Your task to perform on an android device: search for starred emails in the gmail app Image 0: 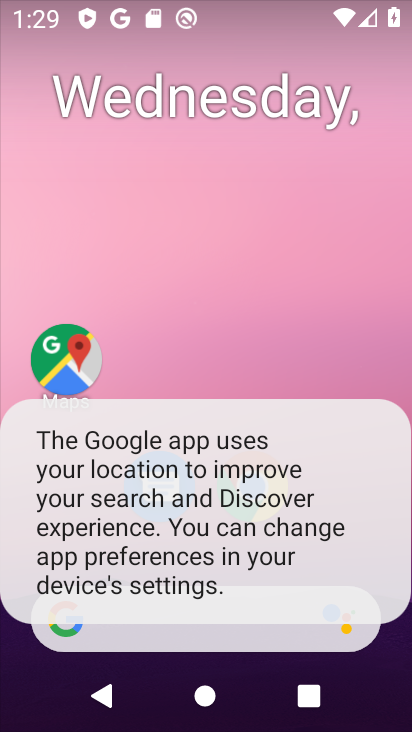
Step 0: drag from (286, 514) to (300, 150)
Your task to perform on an android device: search for starred emails in the gmail app Image 1: 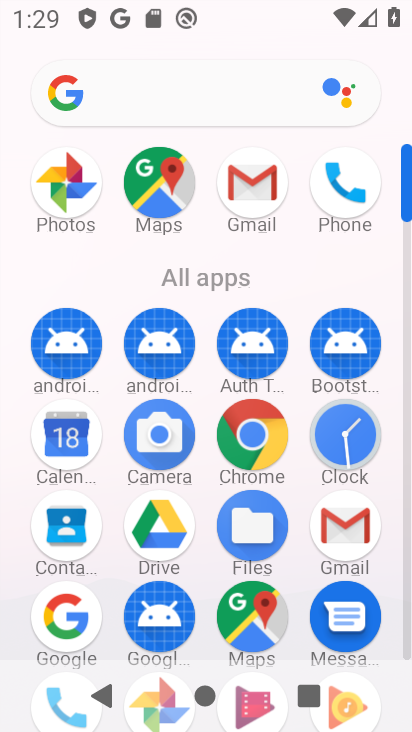
Step 1: drag from (247, 550) to (276, 497)
Your task to perform on an android device: search for starred emails in the gmail app Image 2: 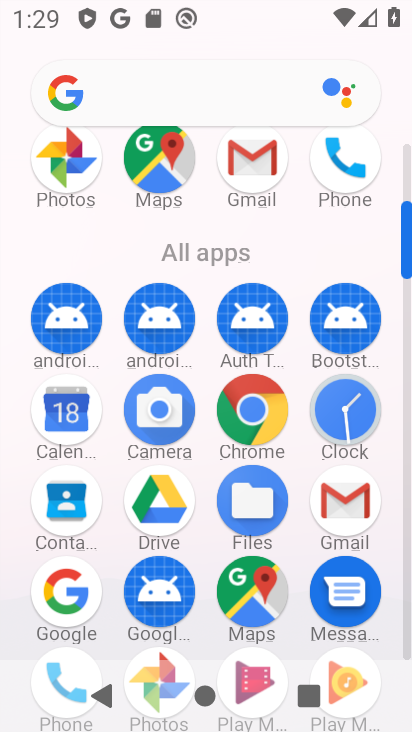
Step 2: click (357, 489)
Your task to perform on an android device: search for starred emails in the gmail app Image 3: 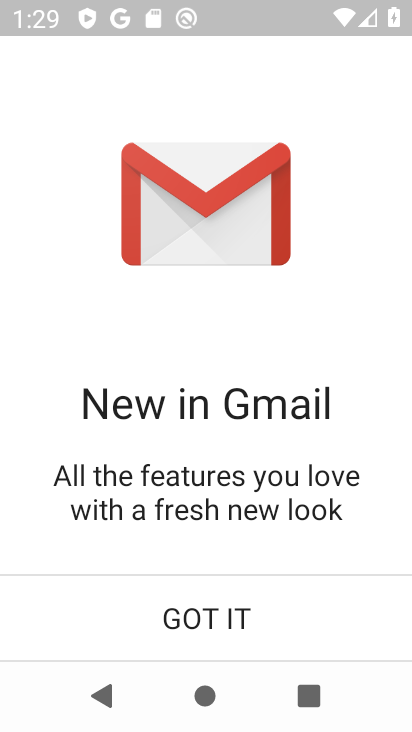
Step 3: click (240, 617)
Your task to perform on an android device: search for starred emails in the gmail app Image 4: 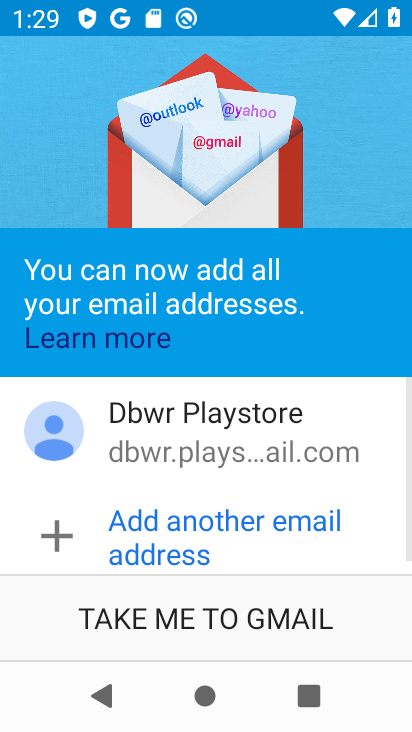
Step 4: click (240, 617)
Your task to perform on an android device: search for starred emails in the gmail app Image 5: 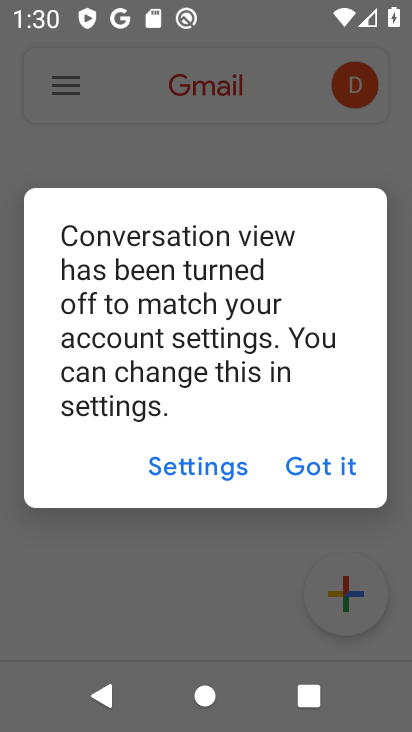
Step 5: click (313, 464)
Your task to perform on an android device: search for starred emails in the gmail app Image 6: 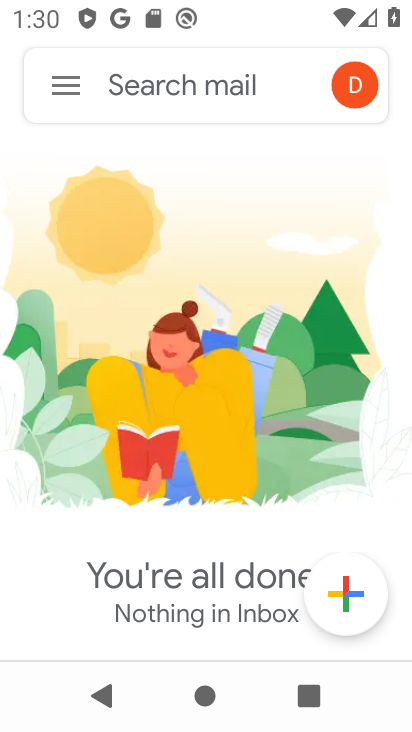
Step 6: click (57, 70)
Your task to perform on an android device: search for starred emails in the gmail app Image 7: 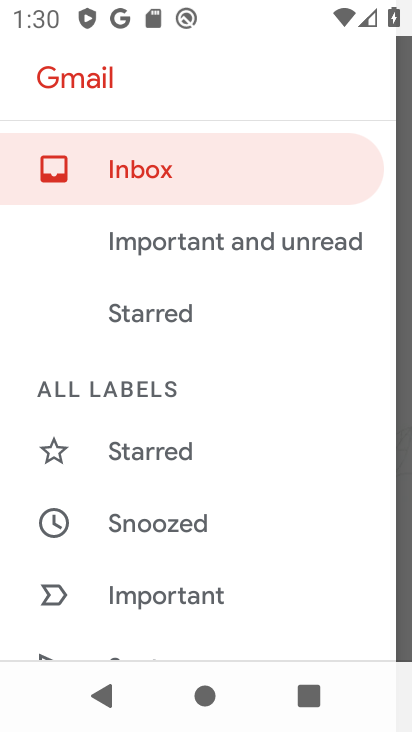
Step 7: click (191, 452)
Your task to perform on an android device: search for starred emails in the gmail app Image 8: 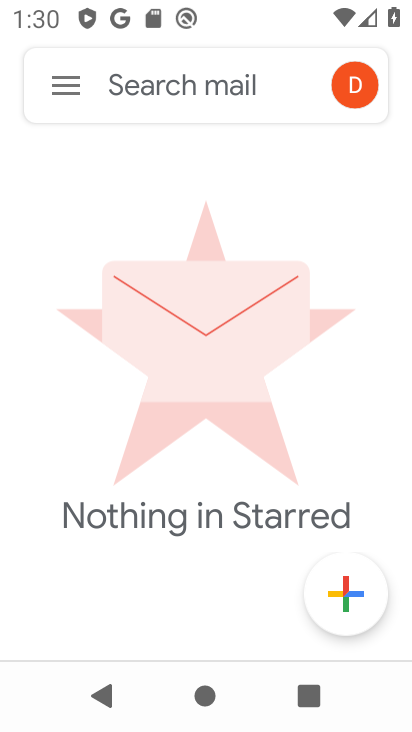
Step 8: task complete